Your task to perform on an android device: open sync settings in chrome Image 0: 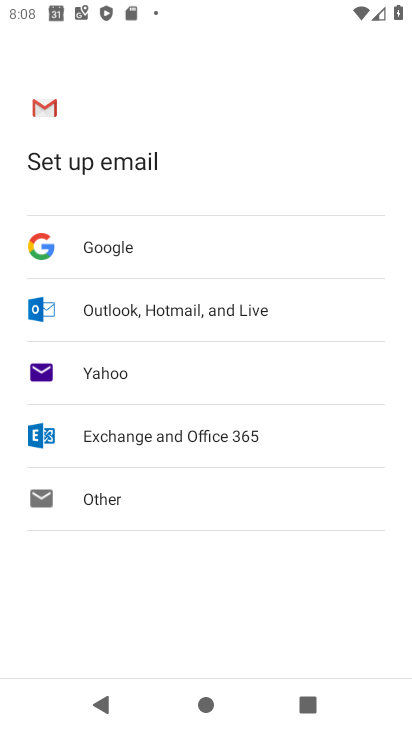
Step 0: press home button
Your task to perform on an android device: open sync settings in chrome Image 1: 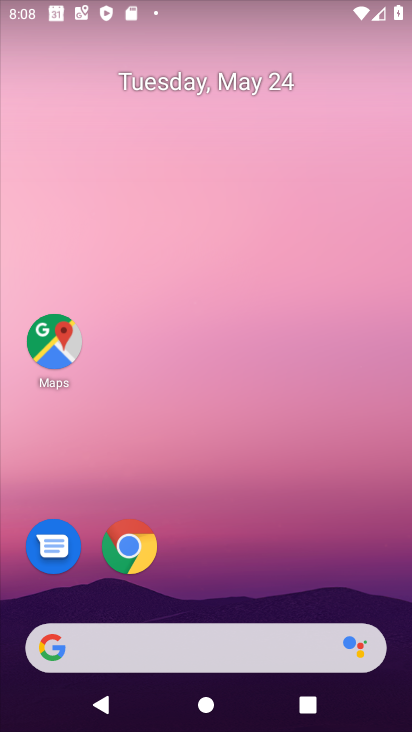
Step 1: click (141, 551)
Your task to perform on an android device: open sync settings in chrome Image 2: 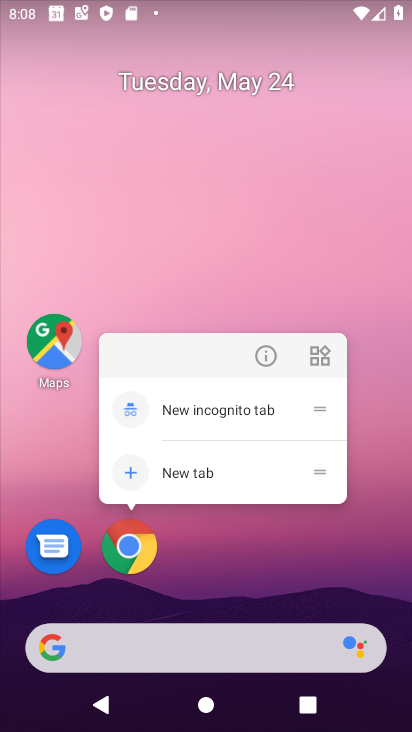
Step 2: click (141, 545)
Your task to perform on an android device: open sync settings in chrome Image 3: 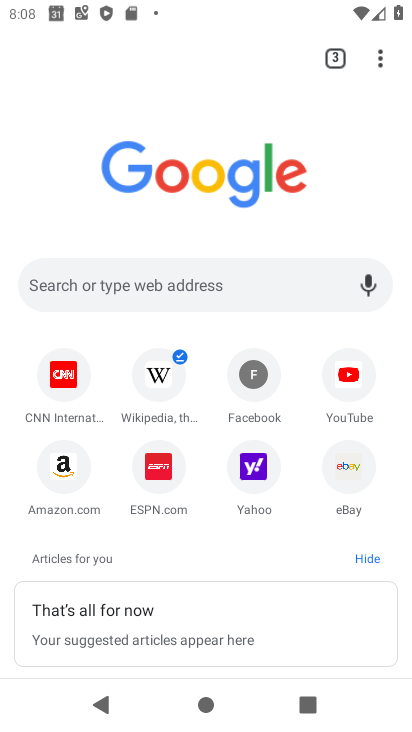
Step 3: click (374, 58)
Your task to perform on an android device: open sync settings in chrome Image 4: 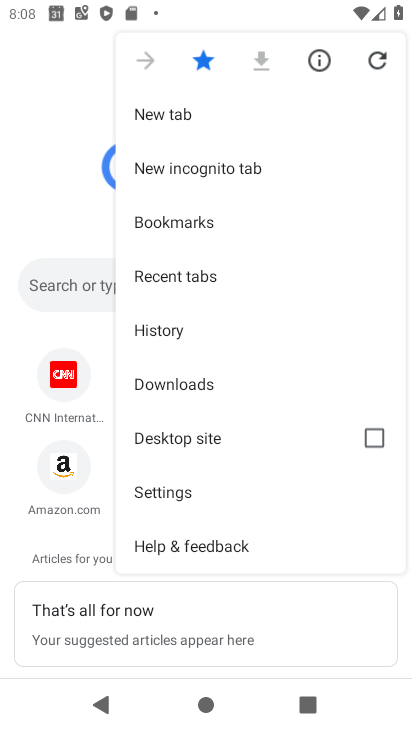
Step 4: click (184, 483)
Your task to perform on an android device: open sync settings in chrome Image 5: 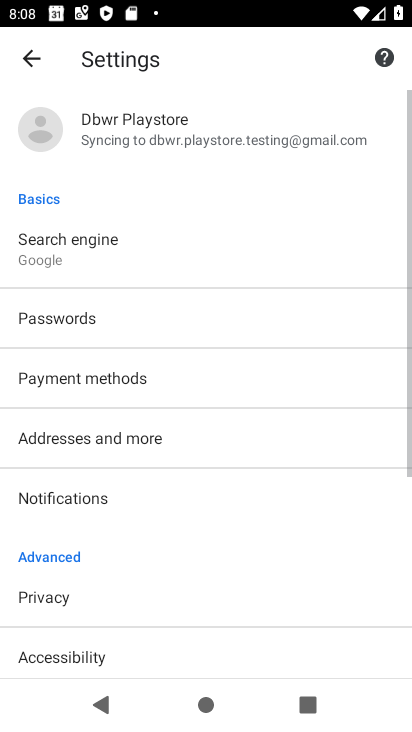
Step 5: click (264, 128)
Your task to perform on an android device: open sync settings in chrome Image 6: 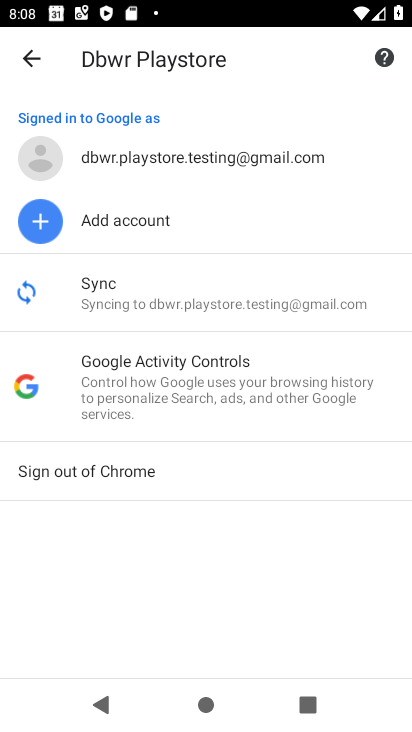
Step 6: click (160, 290)
Your task to perform on an android device: open sync settings in chrome Image 7: 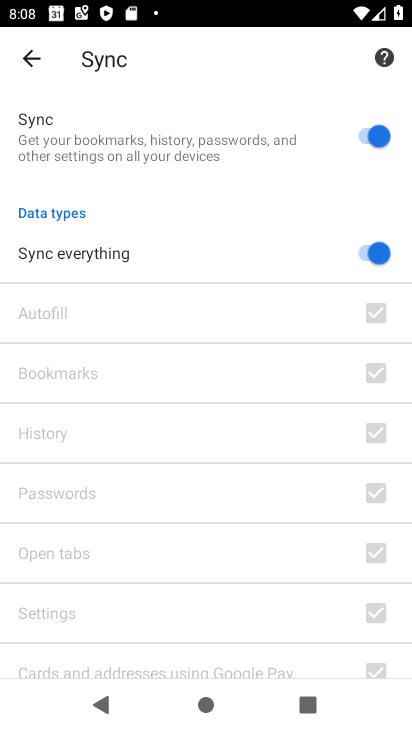
Step 7: task complete